Your task to perform on an android device: Go to eBay Image 0: 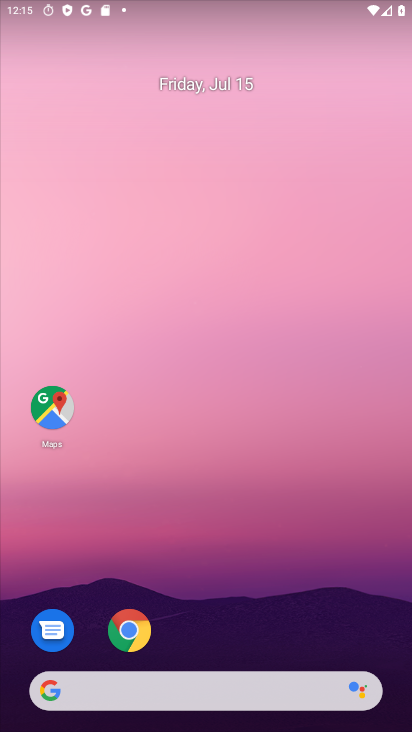
Step 0: click (395, 550)
Your task to perform on an android device: Go to eBay Image 1: 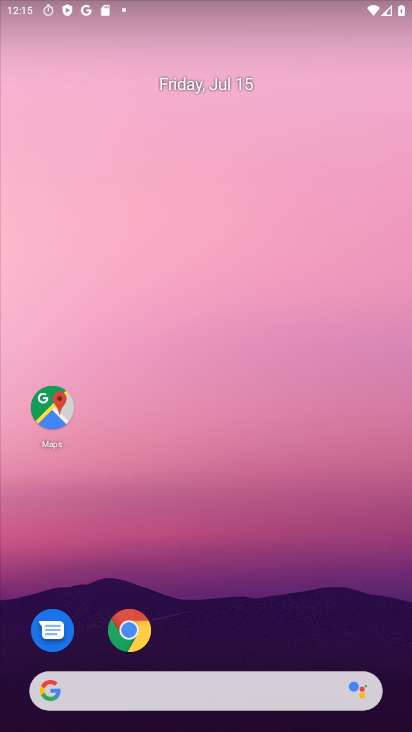
Step 1: drag from (188, 627) to (216, 260)
Your task to perform on an android device: Go to eBay Image 2: 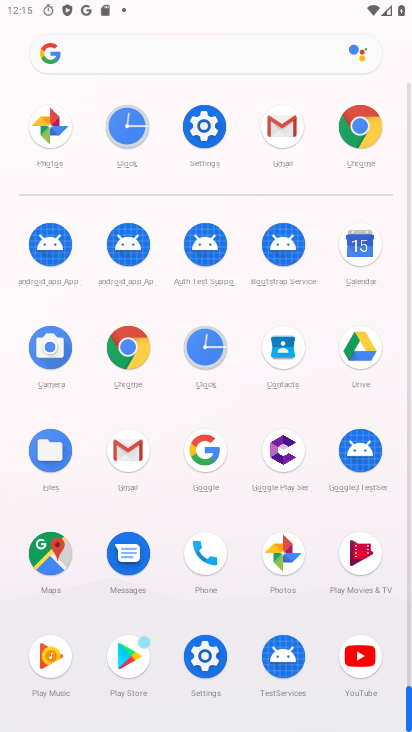
Step 2: click (269, 53)
Your task to perform on an android device: Go to eBay Image 3: 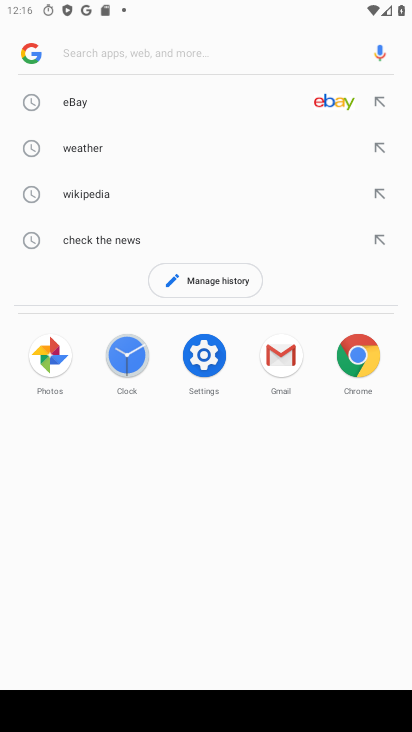
Step 3: type "e"
Your task to perform on an android device: Go to eBay Image 4: 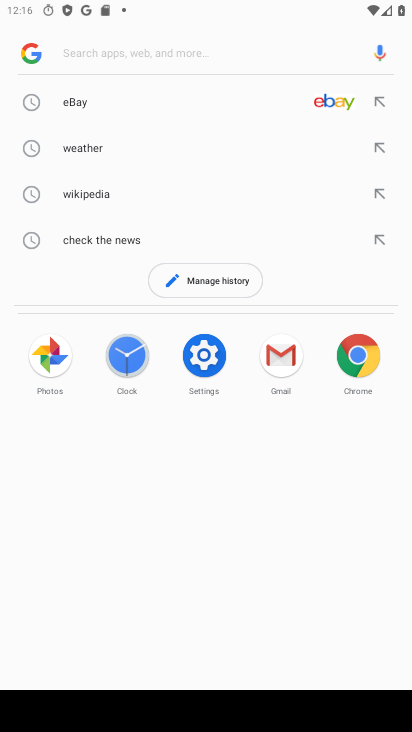
Step 4: click (234, 307)
Your task to perform on an android device: Go to eBay Image 5: 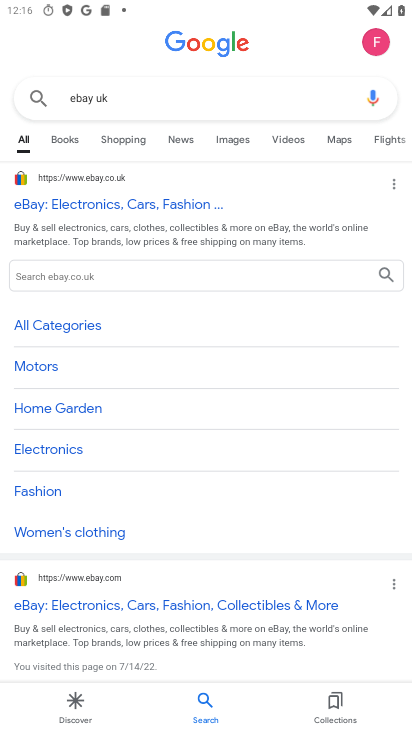
Step 5: drag from (229, 623) to (260, 210)
Your task to perform on an android device: Go to eBay Image 6: 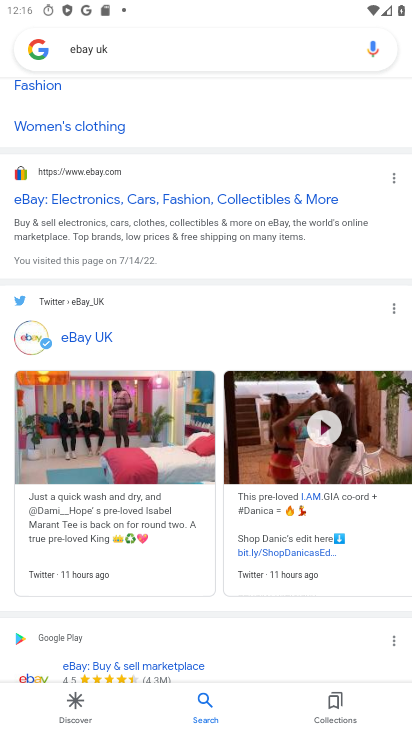
Step 6: drag from (180, 623) to (266, 284)
Your task to perform on an android device: Go to eBay Image 7: 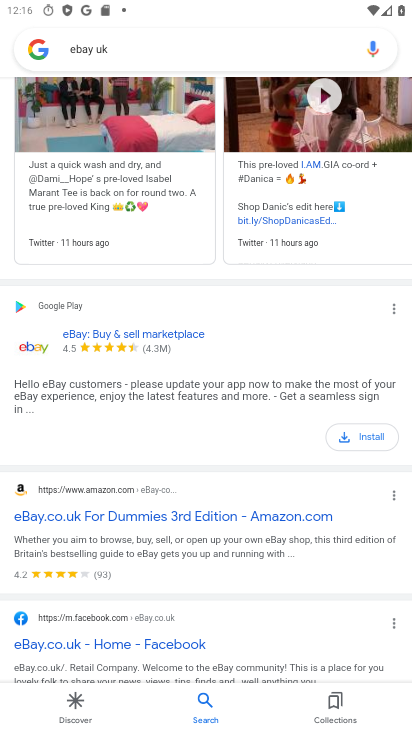
Step 7: drag from (225, 263) to (230, 636)
Your task to perform on an android device: Go to eBay Image 8: 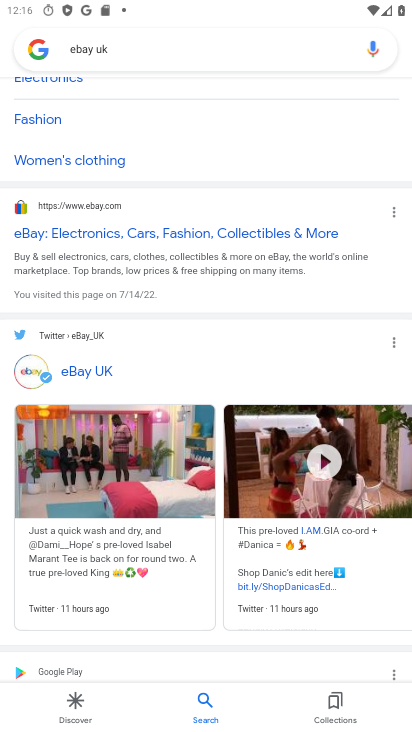
Step 8: drag from (191, 643) to (220, 371)
Your task to perform on an android device: Go to eBay Image 9: 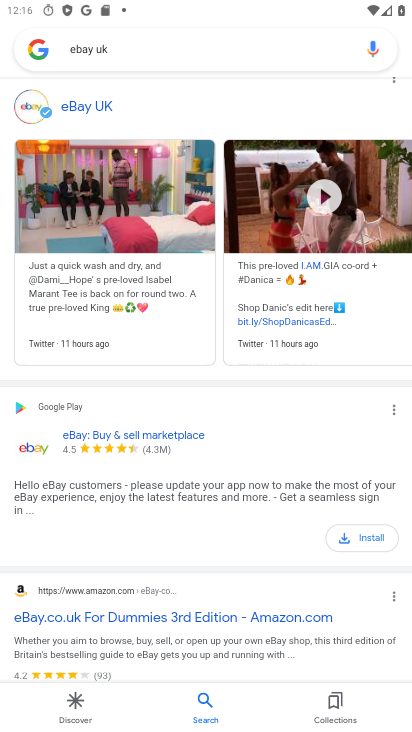
Step 9: drag from (242, 197) to (219, 704)
Your task to perform on an android device: Go to eBay Image 10: 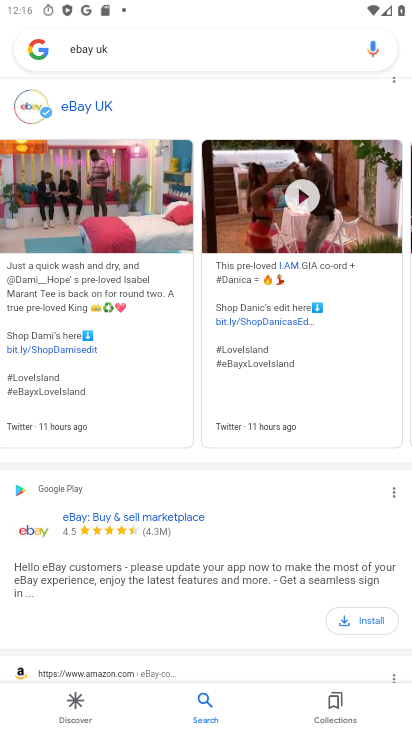
Step 10: drag from (188, 117) to (186, 655)
Your task to perform on an android device: Go to eBay Image 11: 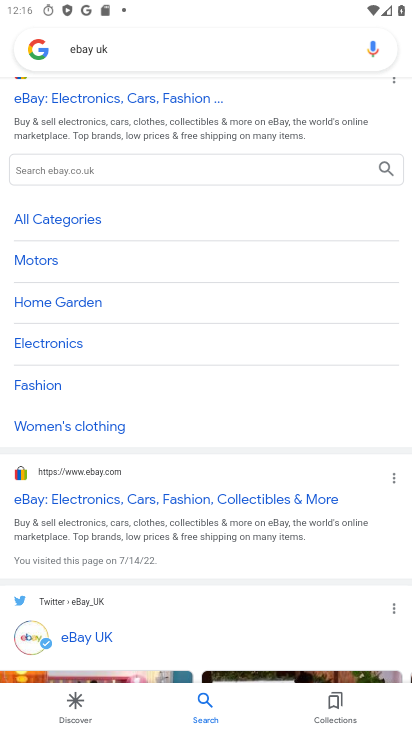
Step 11: drag from (67, 175) to (146, 608)
Your task to perform on an android device: Go to eBay Image 12: 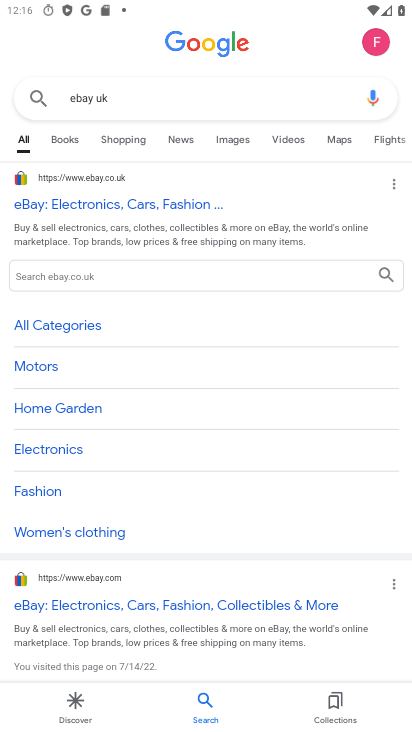
Step 12: click (64, 190)
Your task to perform on an android device: Go to eBay Image 13: 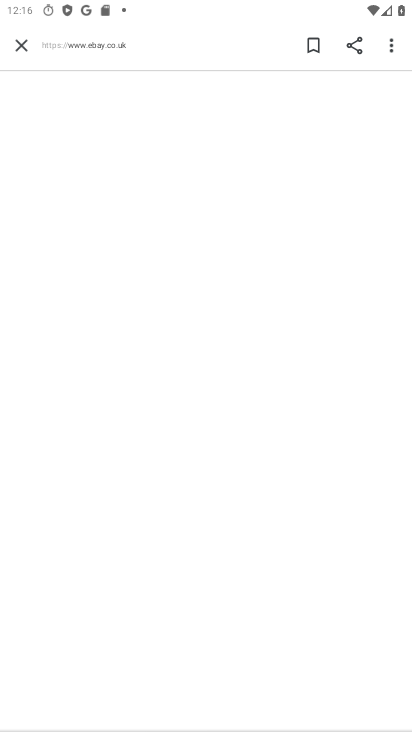
Step 13: task complete